Your task to perform on an android device: open device folders in google photos Image 0: 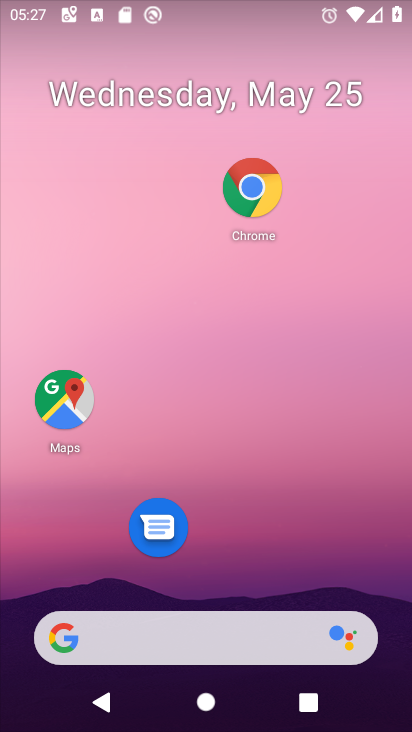
Step 0: drag from (269, 613) to (282, 128)
Your task to perform on an android device: open device folders in google photos Image 1: 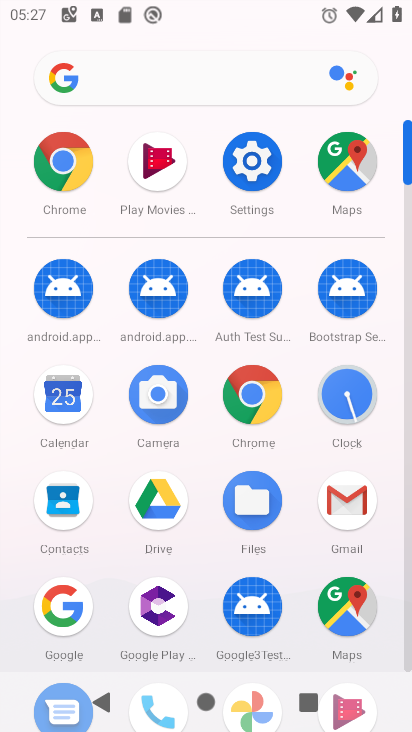
Step 1: drag from (301, 650) to (291, 352)
Your task to perform on an android device: open device folders in google photos Image 2: 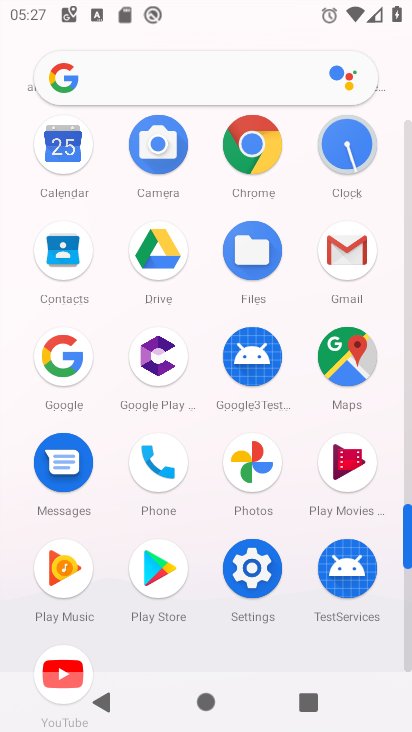
Step 2: click (247, 459)
Your task to perform on an android device: open device folders in google photos Image 3: 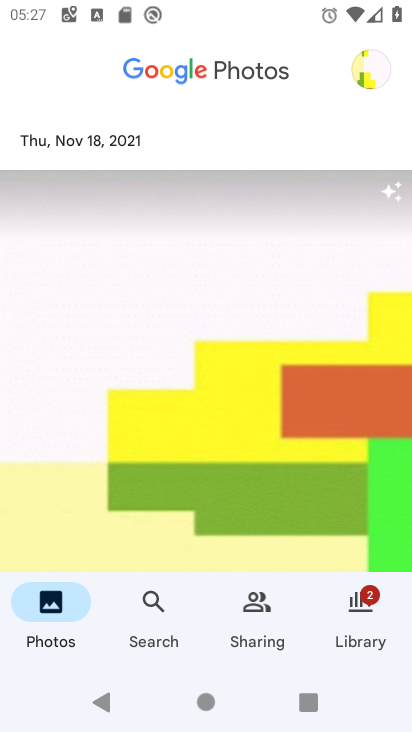
Step 3: click (357, 79)
Your task to perform on an android device: open device folders in google photos Image 4: 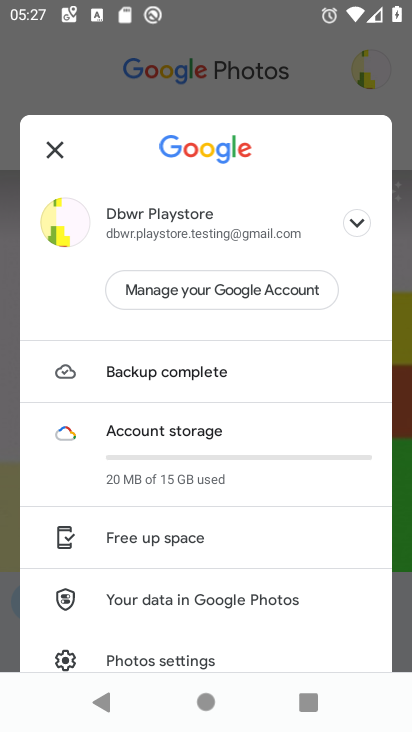
Step 4: click (244, 35)
Your task to perform on an android device: open device folders in google photos Image 5: 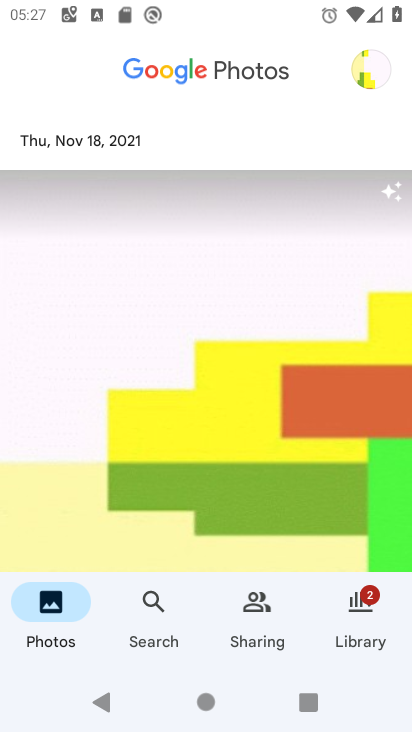
Step 5: click (360, 613)
Your task to perform on an android device: open device folders in google photos Image 6: 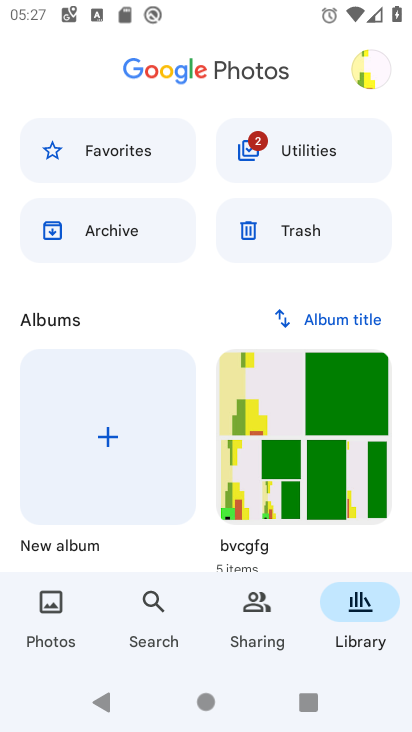
Step 6: task complete